Your task to perform on an android device: Open Google Chrome Image 0: 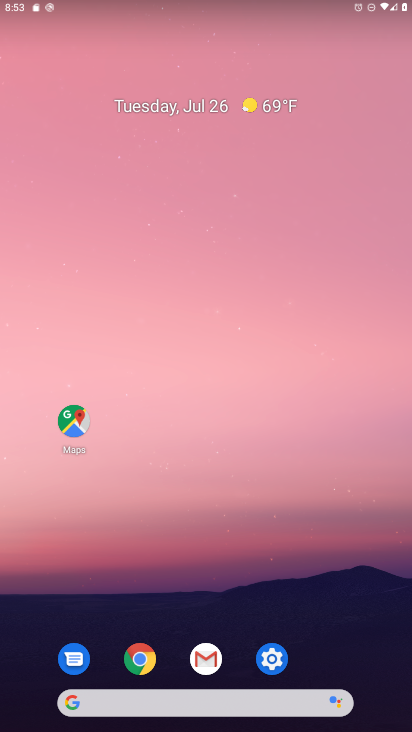
Step 0: click (151, 668)
Your task to perform on an android device: Open Google Chrome Image 1: 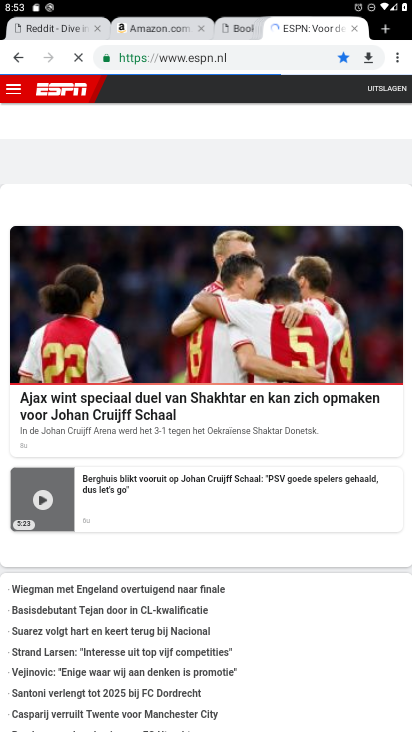
Step 1: click (383, 36)
Your task to perform on an android device: Open Google Chrome Image 2: 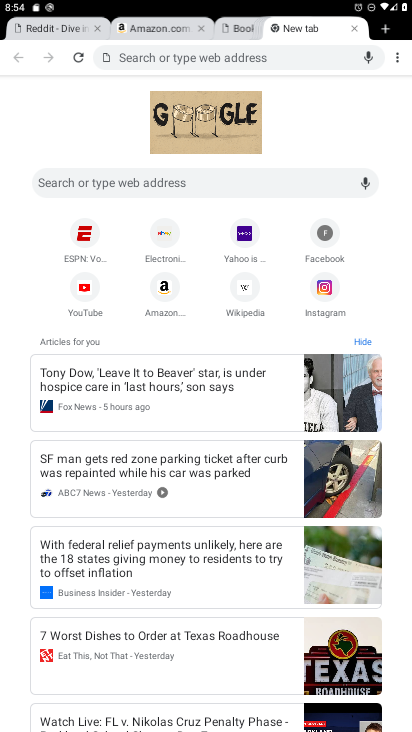
Step 2: task complete